Your task to perform on an android device: turn on notifications settings in the gmail app Image 0: 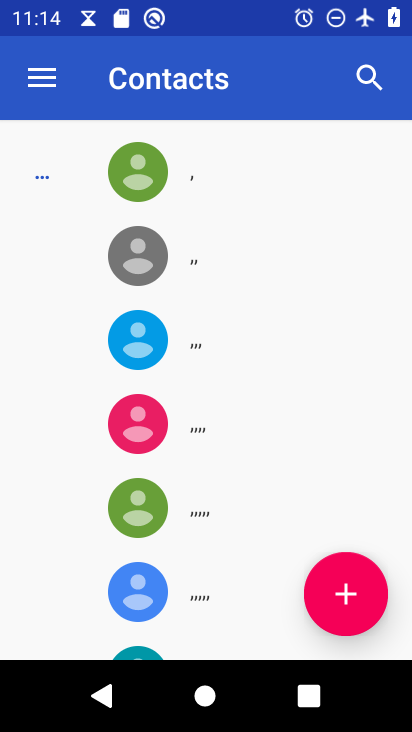
Step 0: press home button
Your task to perform on an android device: turn on notifications settings in the gmail app Image 1: 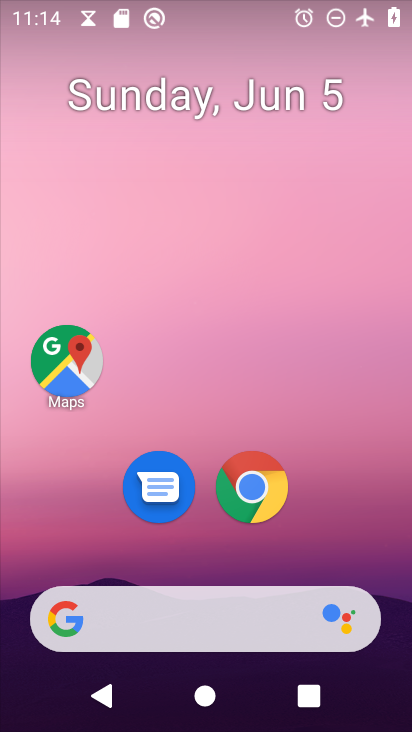
Step 1: drag from (314, 506) to (303, 270)
Your task to perform on an android device: turn on notifications settings in the gmail app Image 2: 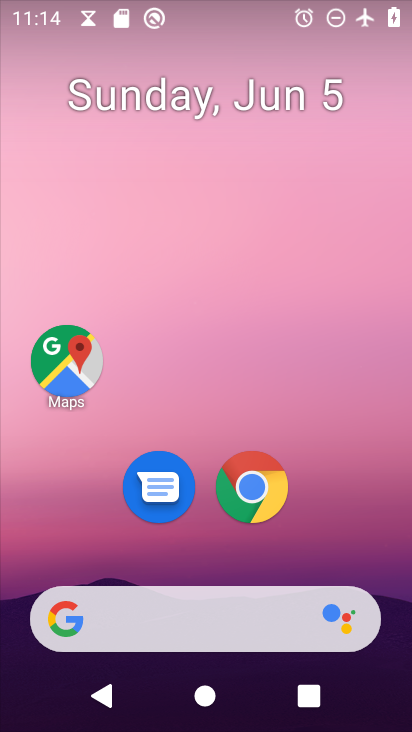
Step 2: drag from (161, 514) to (162, 229)
Your task to perform on an android device: turn on notifications settings in the gmail app Image 3: 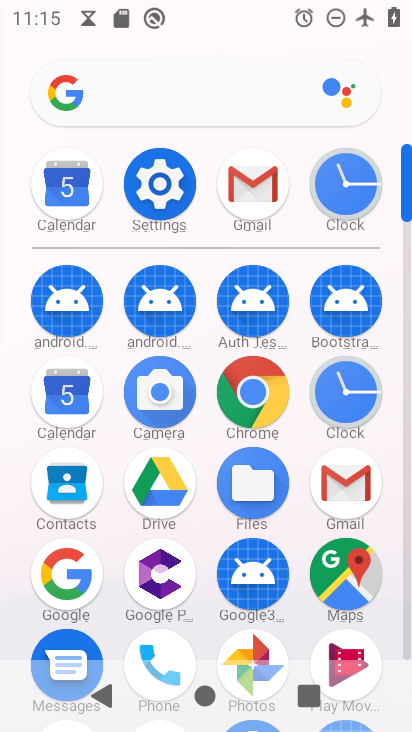
Step 3: click (244, 177)
Your task to perform on an android device: turn on notifications settings in the gmail app Image 4: 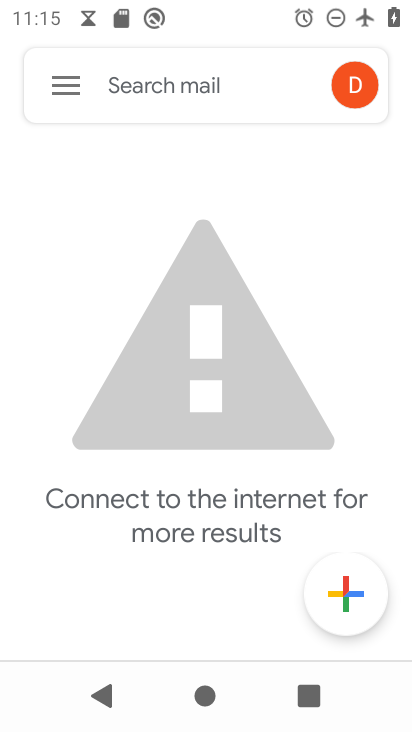
Step 4: click (70, 85)
Your task to perform on an android device: turn on notifications settings in the gmail app Image 5: 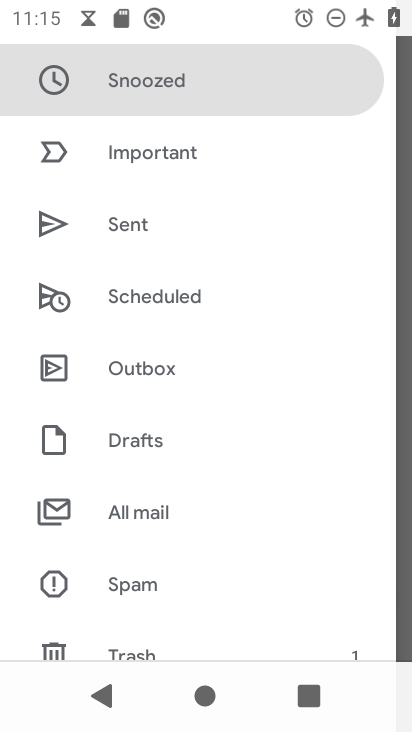
Step 5: drag from (184, 614) to (224, 187)
Your task to perform on an android device: turn on notifications settings in the gmail app Image 6: 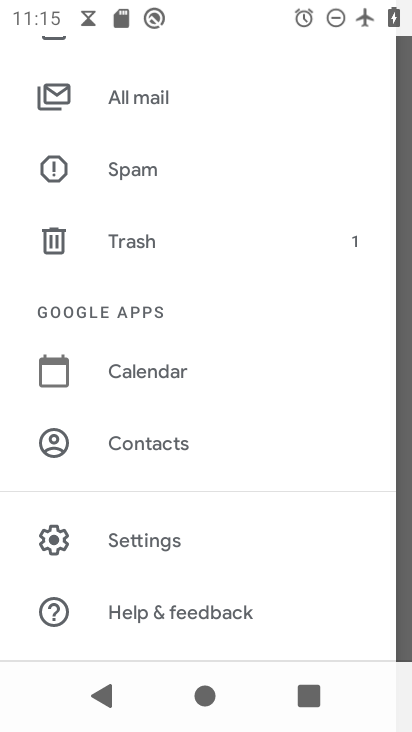
Step 6: click (173, 532)
Your task to perform on an android device: turn on notifications settings in the gmail app Image 7: 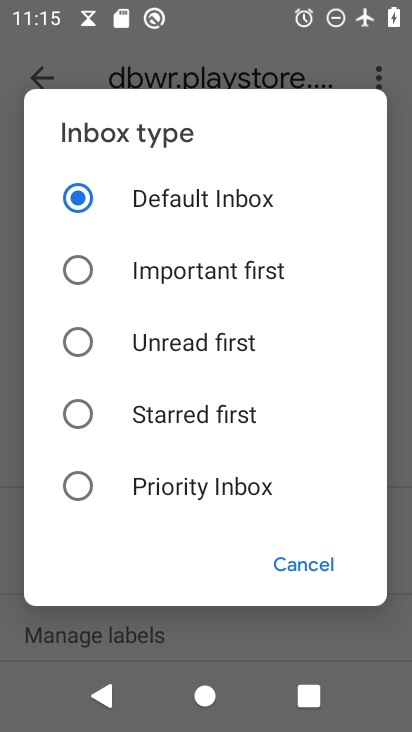
Step 7: click (267, 570)
Your task to perform on an android device: turn on notifications settings in the gmail app Image 8: 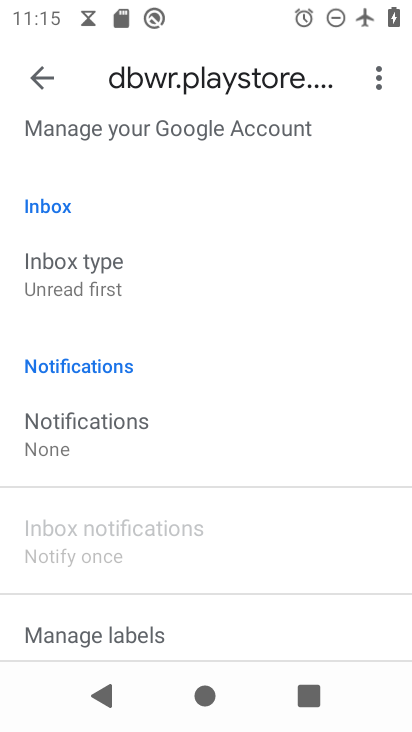
Step 8: click (92, 440)
Your task to perform on an android device: turn on notifications settings in the gmail app Image 9: 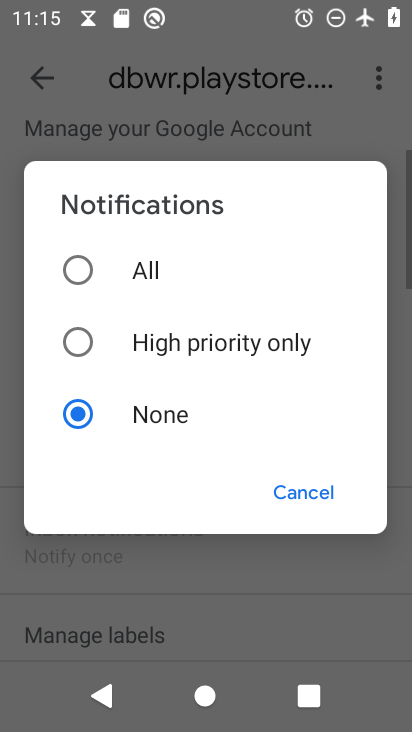
Step 9: click (145, 263)
Your task to perform on an android device: turn on notifications settings in the gmail app Image 10: 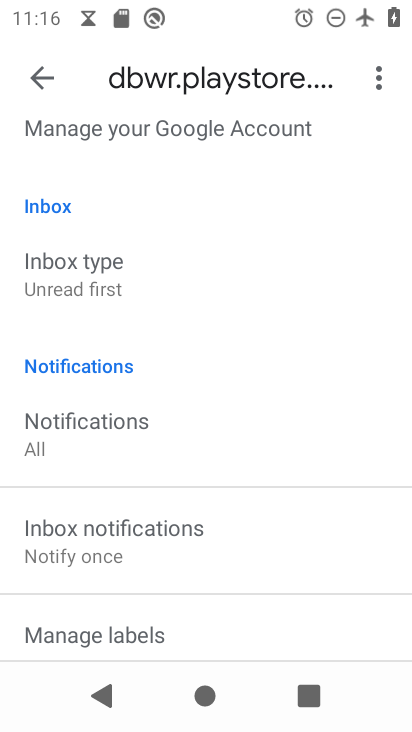
Step 10: task complete